Your task to perform on an android device: Go to battery settings Image 0: 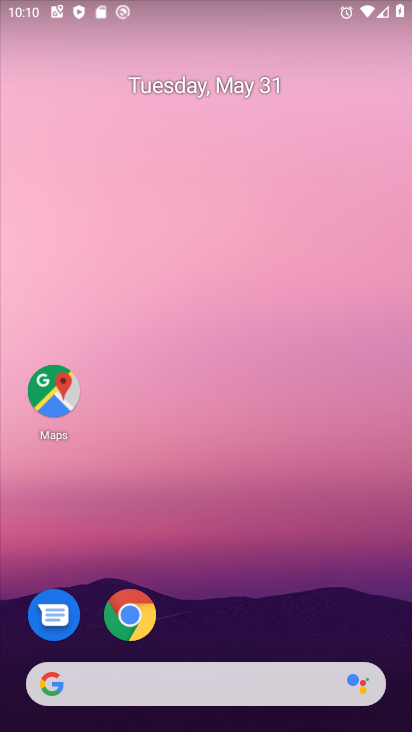
Step 0: drag from (269, 173) to (241, 67)
Your task to perform on an android device: Go to battery settings Image 1: 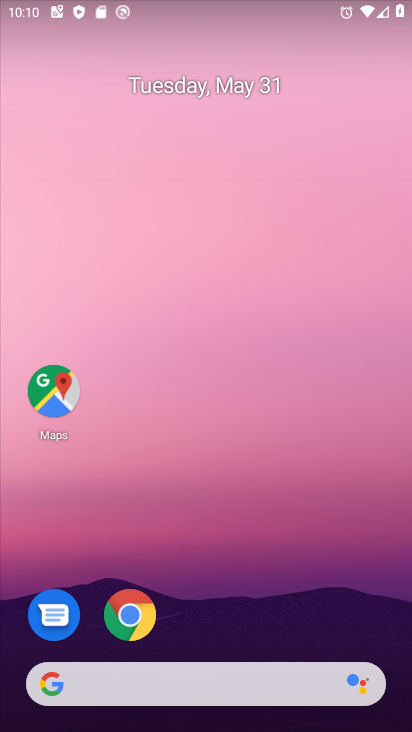
Step 1: drag from (301, 590) to (316, 14)
Your task to perform on an android device: Go to battery settings Image 2: 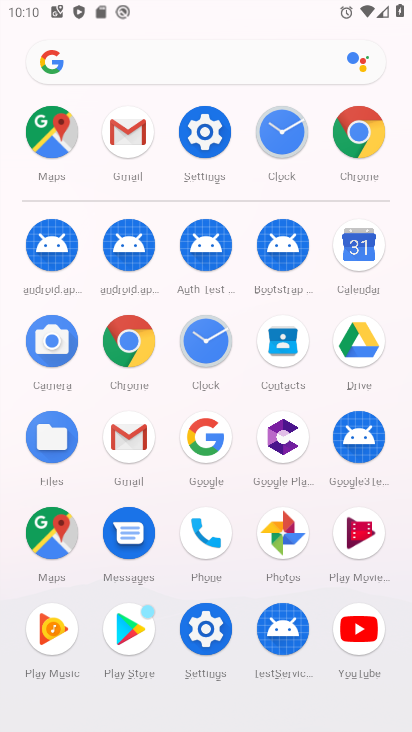
Step 2: click (228, 130)
Your task to perform on an android device: Go to battery settings Image 3: 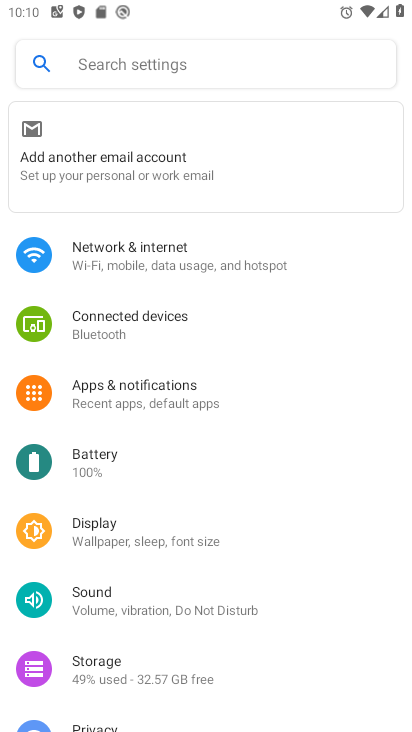
Step 3: click (111, 464)
Your task to perform on an android device: Go to battery settings Image 4: 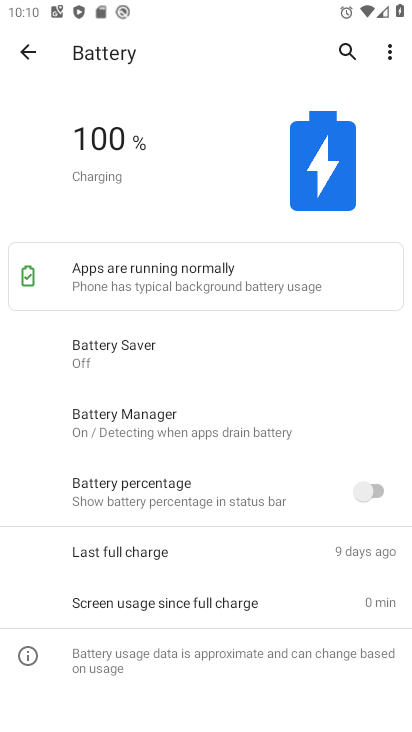
Step 4: task complete